Your task to perform on an android device: turn off javascript in the chrome app Image 0: 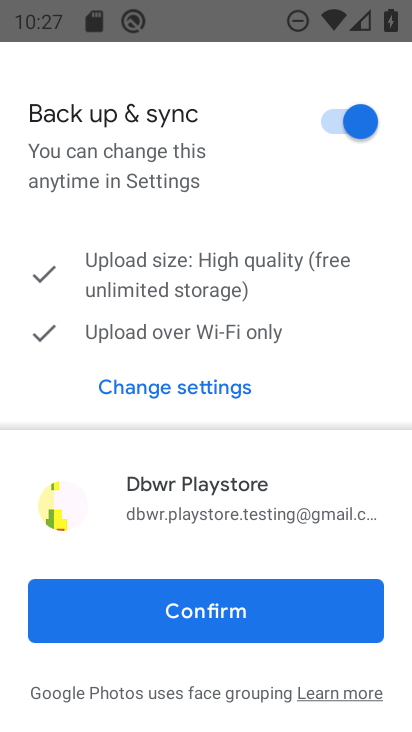
Step 0: press home button
Your task to perform on an android device: turn off javascript in the chrome app Image 1: 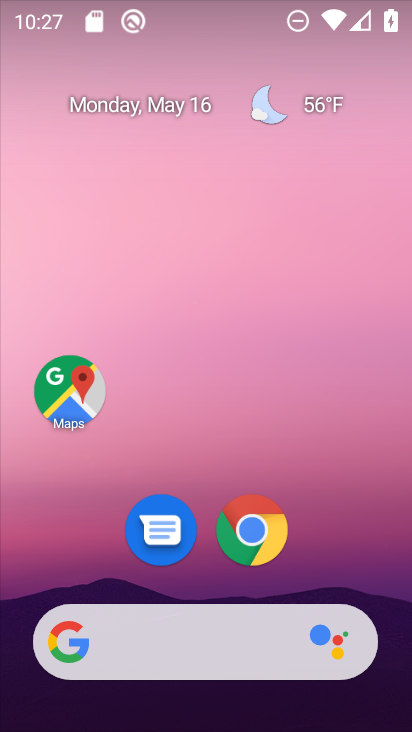
Step 1: click (261, 534)
Your task to perform on an android device: turn off javascript in the chrome app Image 2: 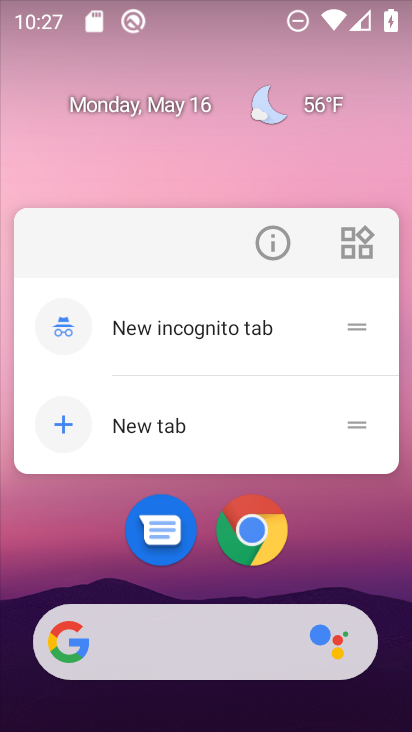
Step 2: click (261, 534)
Your task to perform on an android device: turn off javascript in the chrome app Image 3: 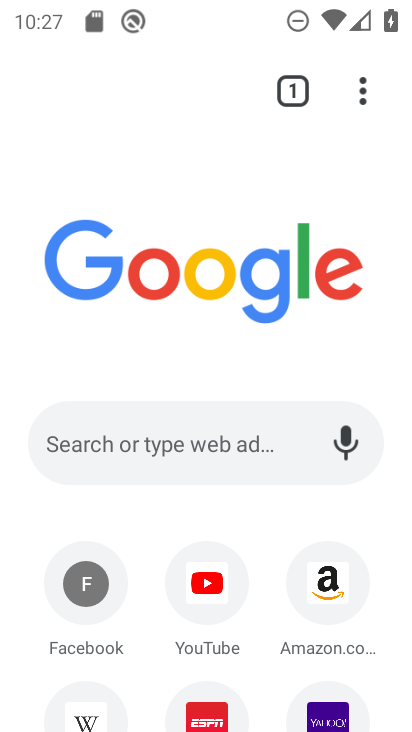
Step 3: drag from (356, 92) to (89, 545)
Your task to perform on an android device: turn off javascript in the chrome app Image 4: 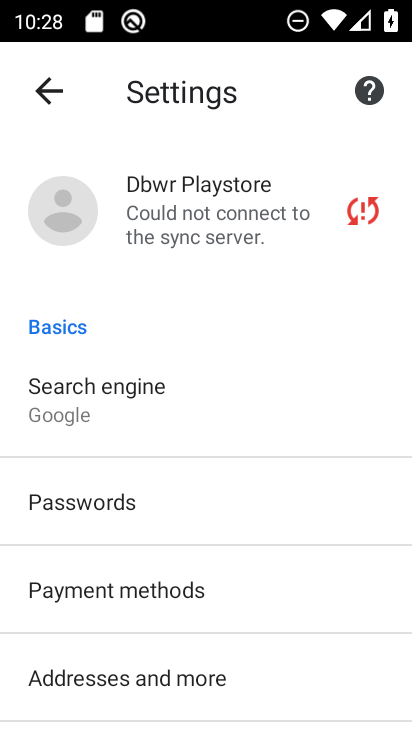
Step 4: drag from (103, 612) to (1, 0)
Your task to perform on an android device: turn off javascript in the chrome app Image 5: 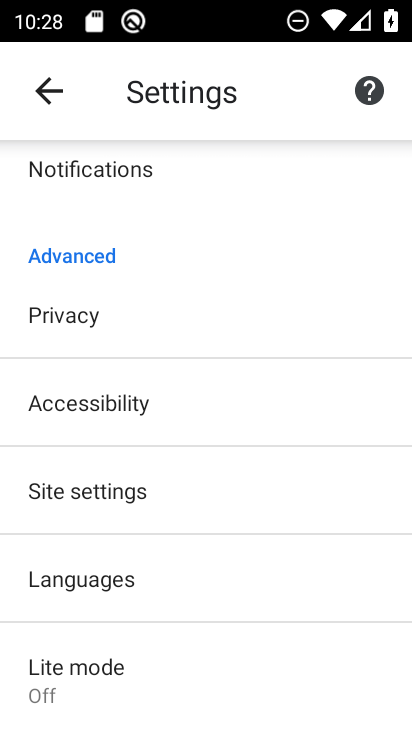
Step 5: click (119, 496)
Your task to perform on an android device: turn off javascript in the chrome app Image 6: 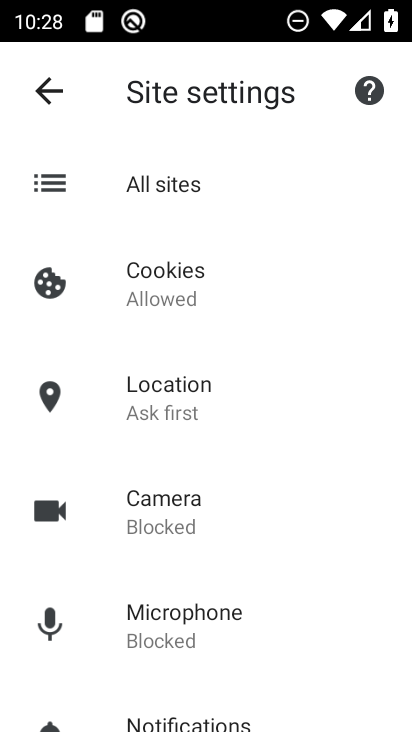
Step 6: drag from (164, 614) to (128, 171)
Your task to perform on an android device: turn off javascript in the chrome app Image 7: 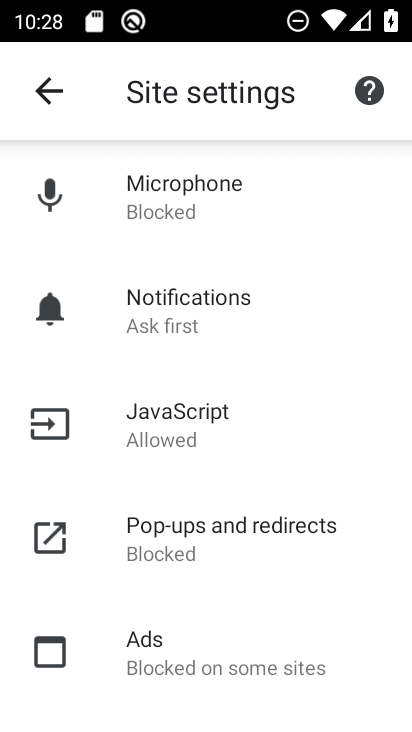
Step 7: click (206, 439)
Your task to perform on an android device: turn off javascript in the chrome app Image 8: 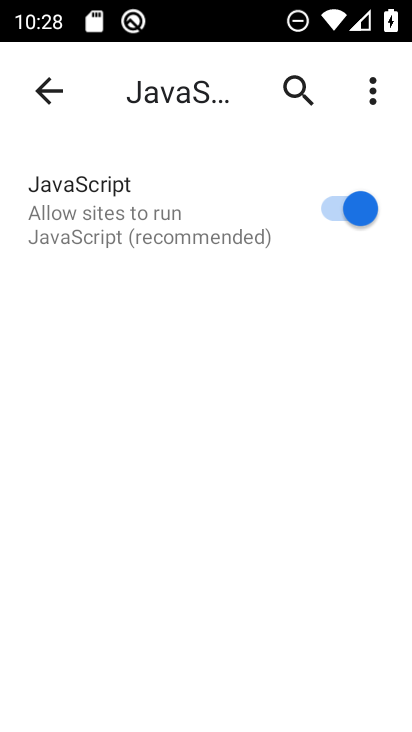
Step 8: click (354, 213)
Your task to perform on an android device: turn off javascript in the chrome app Image 9: 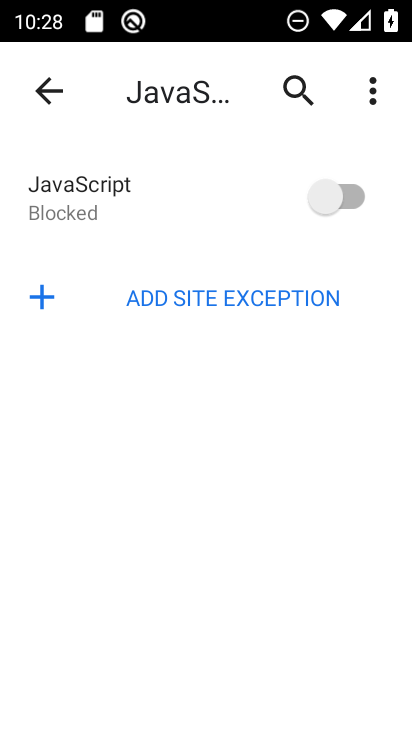
Step 9: task complete